Your task to perform on an android device: toggle notifications settings in the gmail app Image 0: 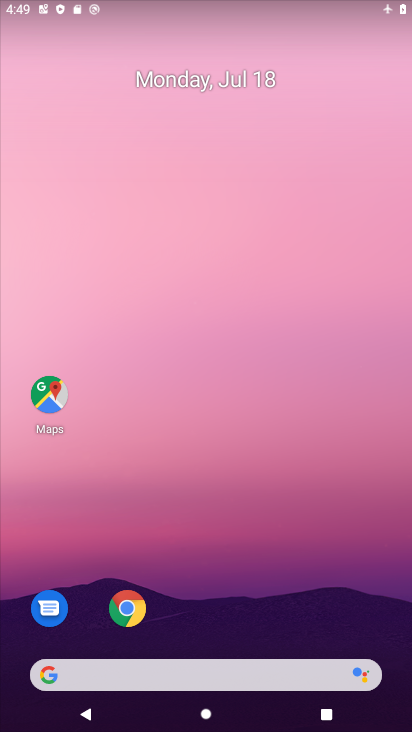
Step 0: drag from (284, 606) to (251, 109)
Your task to perform on an android device: toggle notifications settings in the gmail app Image 1: 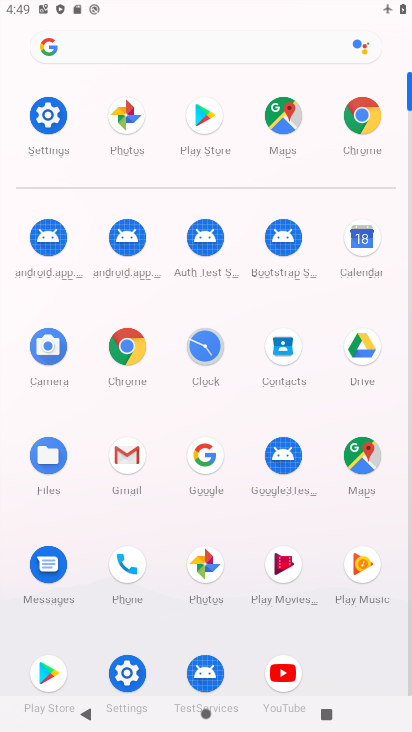
Step 1: click (124, 447)
Your task to perform on an android device: toggle notifications settings in the gmail app Image 2: 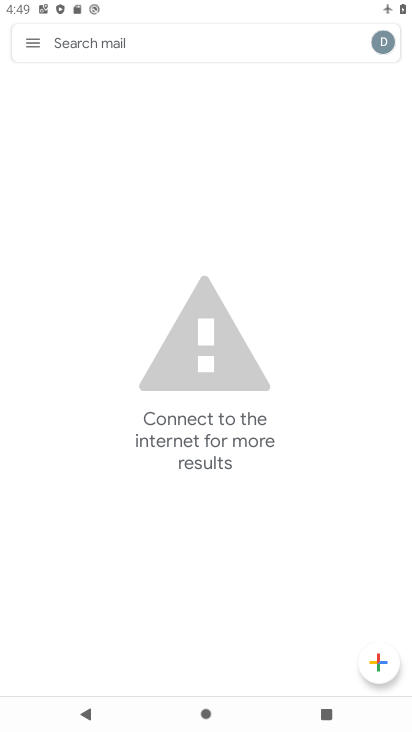
Step 2: click (29, 40)
Your task to perform on an android device: toggle notifications settings in the gmail app Image 3: 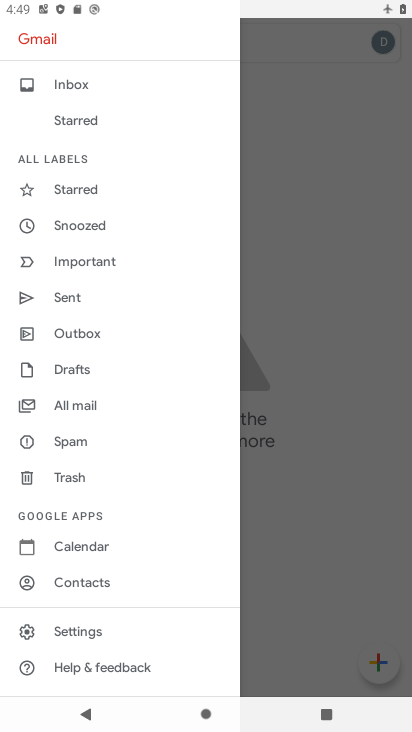
Step 3: click (83, 631)
Your task to perform on an android device: toggle notifications settings in the gmail app Image 4: 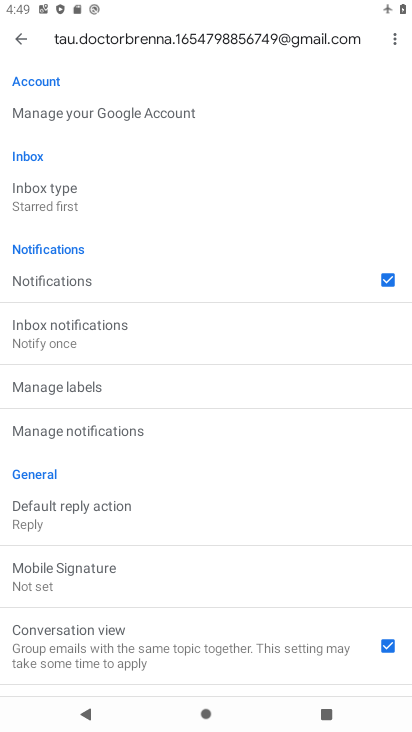
Step 4: click (104, 436)
Your task to perform on an android device: toggle notifications settings in the gmail app Image 5: 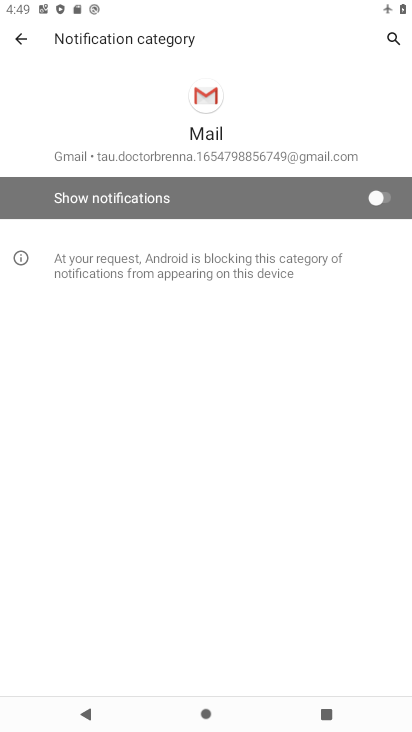
Step 5: click (373, 188)
Your task to perform on an android device: toggle notifications settings in the gmail app Image 6: 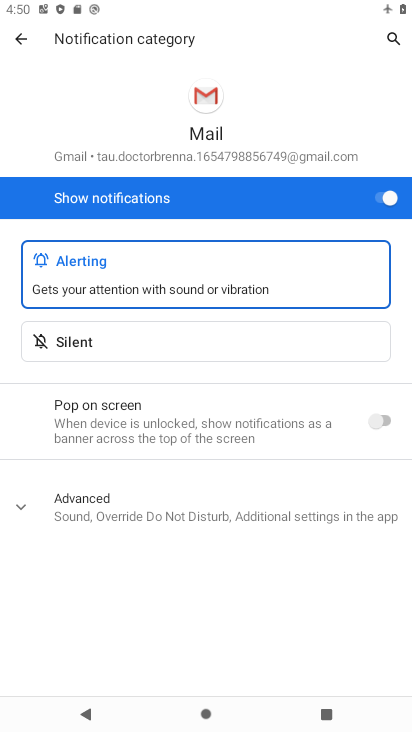
Step 6: task complete